Your task to perform on an android device: Search for a new grill on Home Depot Image 0: 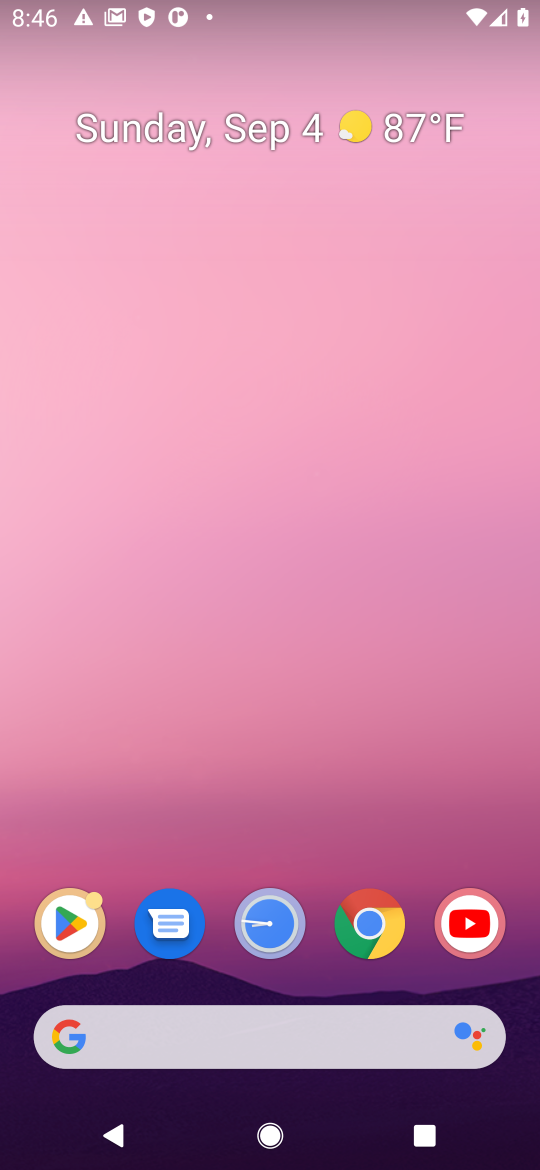
Step 0: press home button
Your task to perform on an android device: Search for a new grill on Home Depot Image 1: 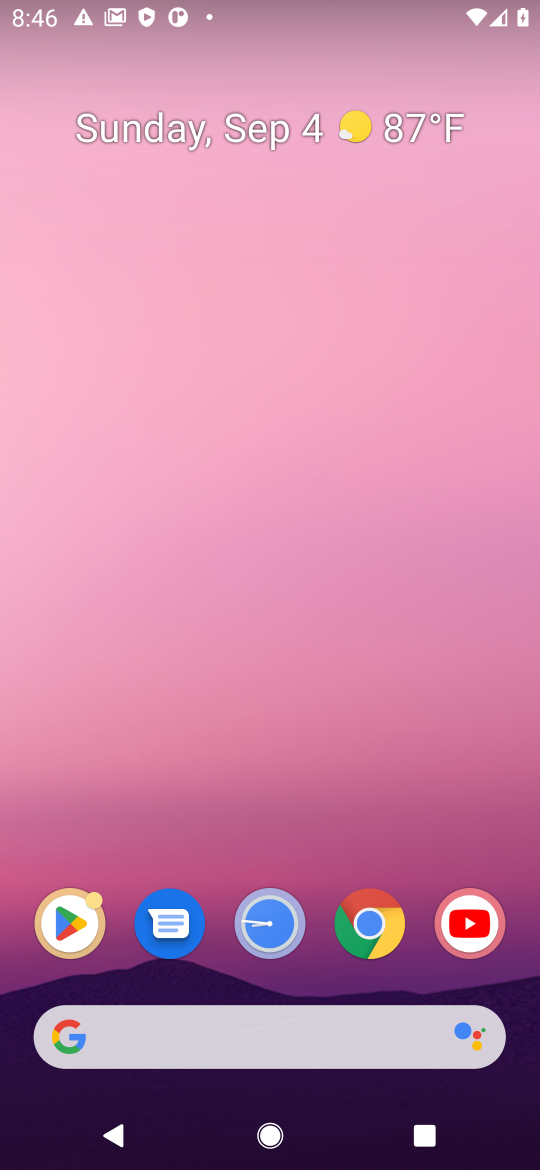
Step 1: click (382, 1028)
Your task to perform on an android device: Search for a new grill on Home Depot Image 2: 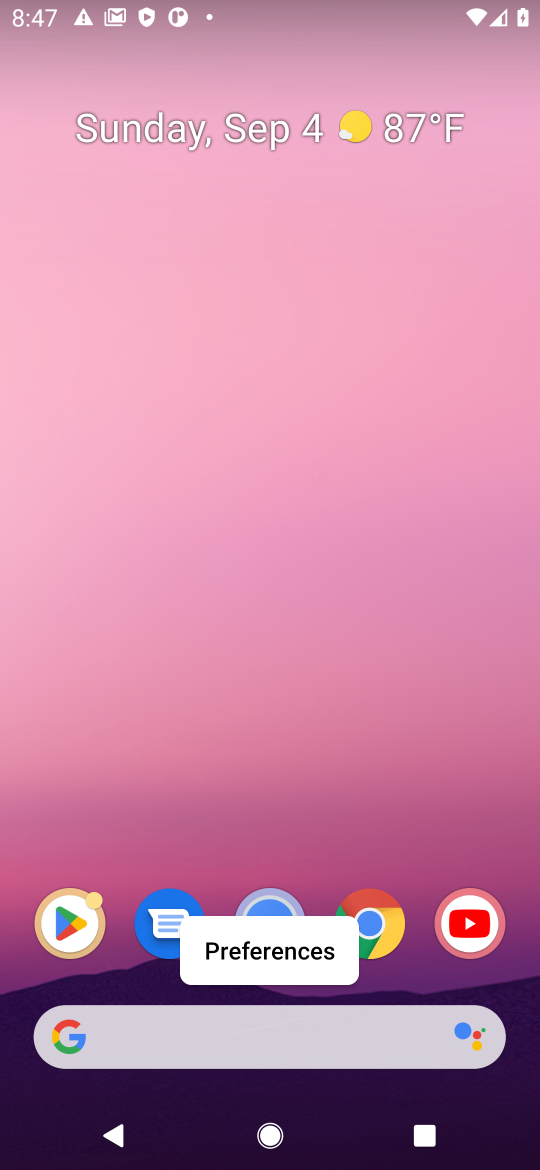
Step 2: click (343, 1047)
Your task to perform on an android device: Search for a new grill on Home Depot Image 3: 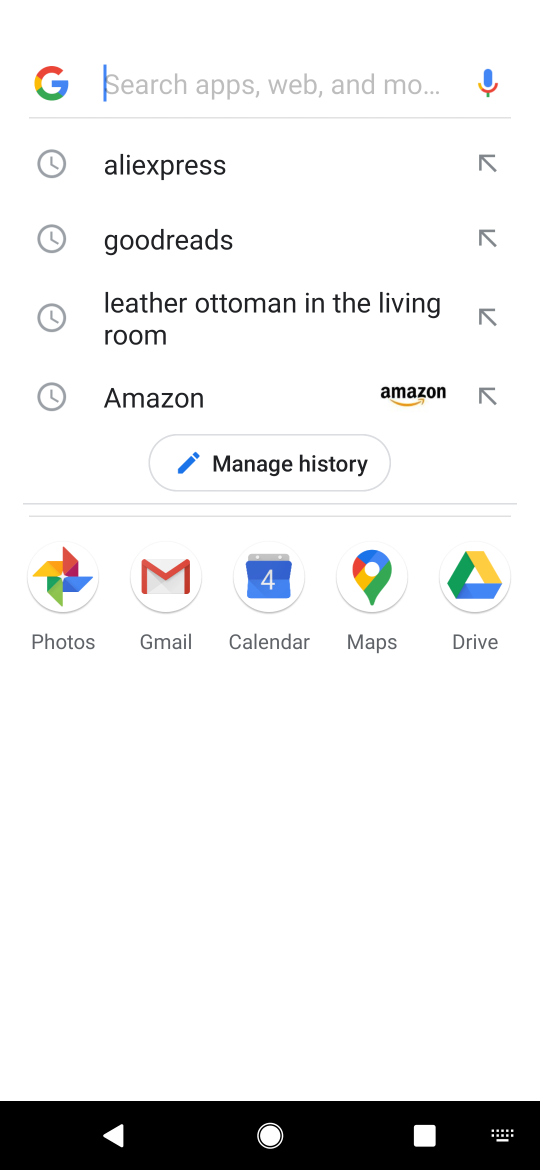
Step 3: press enter
Your task to perform on an android device: Search for a new grill on Home Depot Image 4: 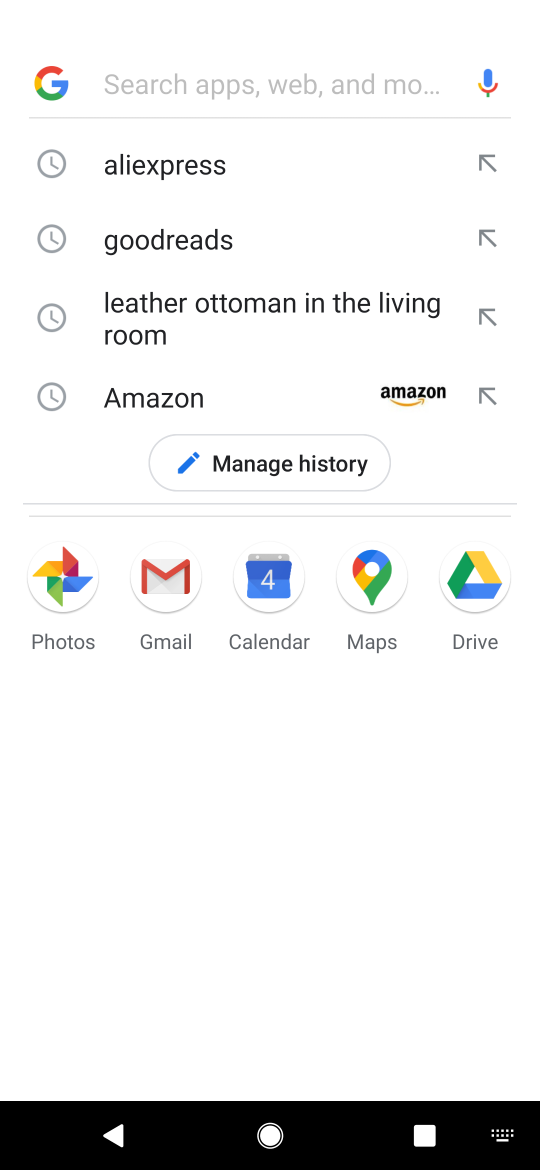
Step 4: type "home depot "
Your task to perform on an android device: Search for a new grill on Home Depot Image 5: 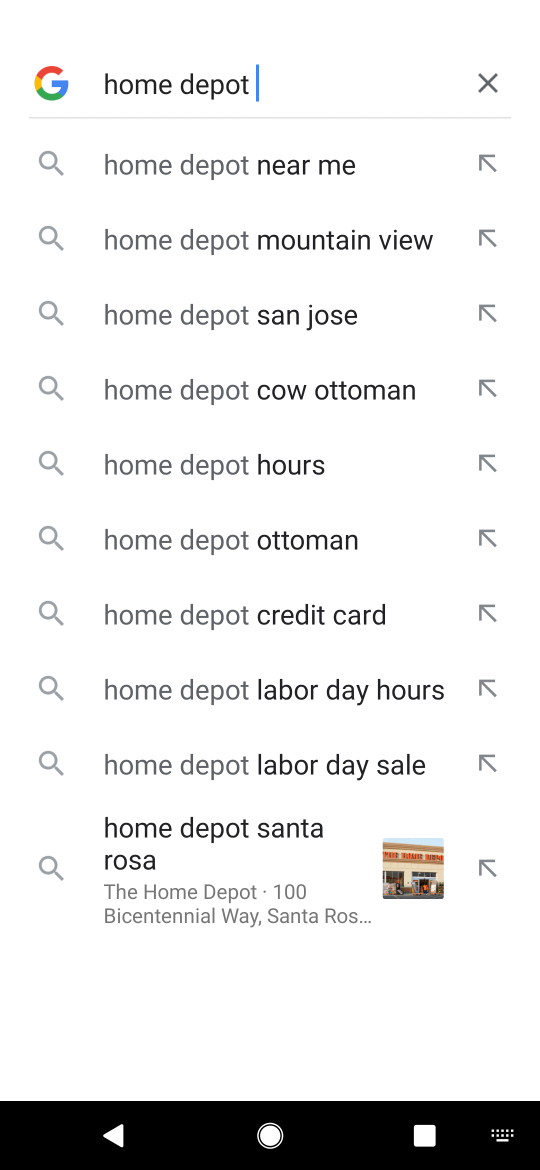
Step 5: press enter
Your task to perform on an android device: Search for a new grill on Home Depot Image 6: 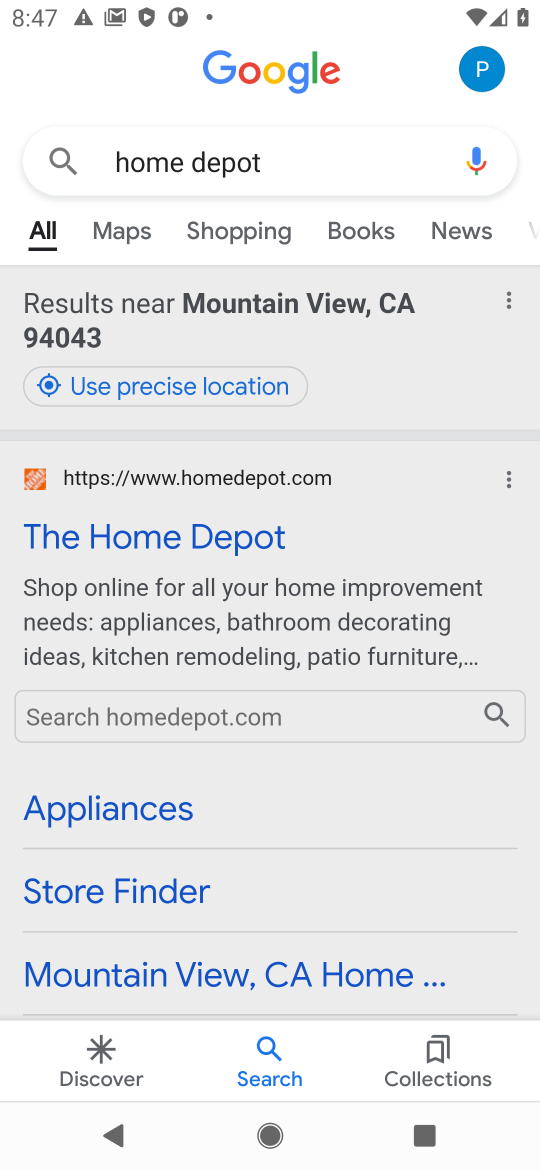
Step 6: click (102, 535)
Your task to perform on an android device: Search for a new grill on Home Depot Image 7: 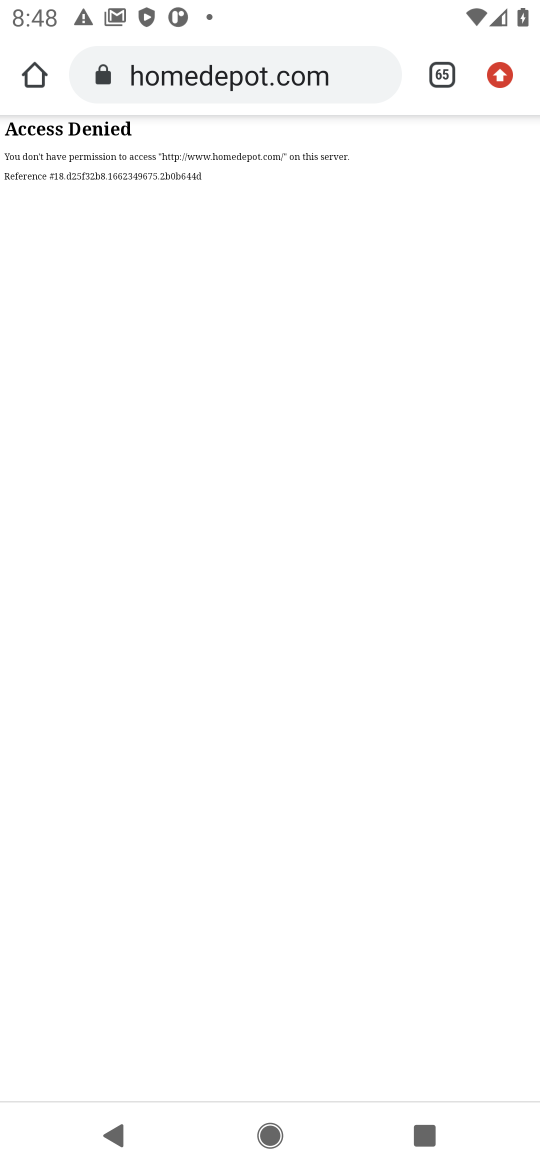
Step 7: task complete